Your task to perform on an android device: Open calendar and show me the first week of next month Image 0: 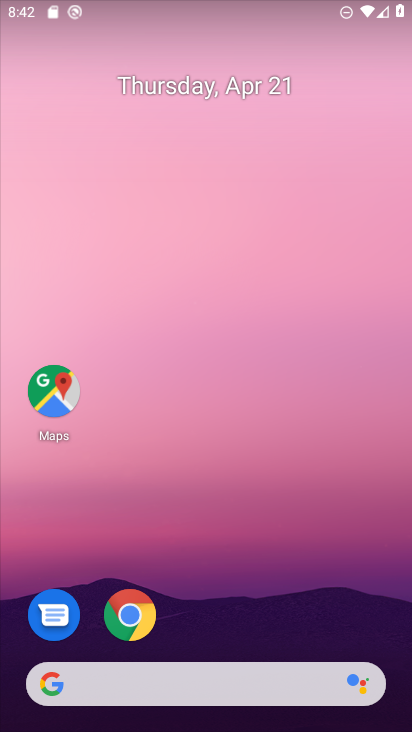
Step 0: drag from (327, 559) to (383, 0)
Your task to perform on an android device: Open calendar and show me the first week of next month Image 1: 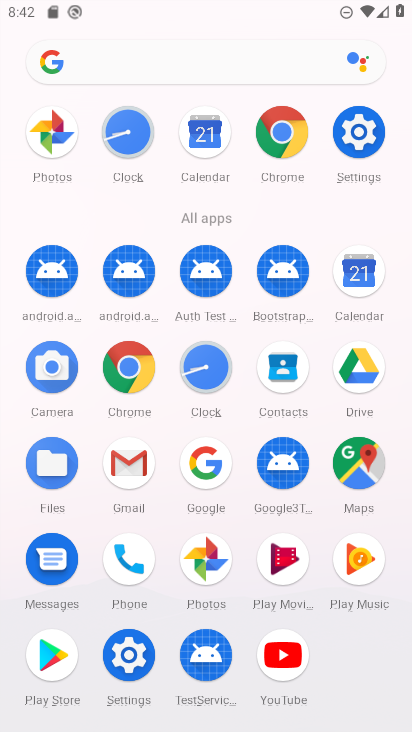
Step 1: click (371, 265)
Your task to perform on an android device: Open calendar and show me the first week of next month Image 2: 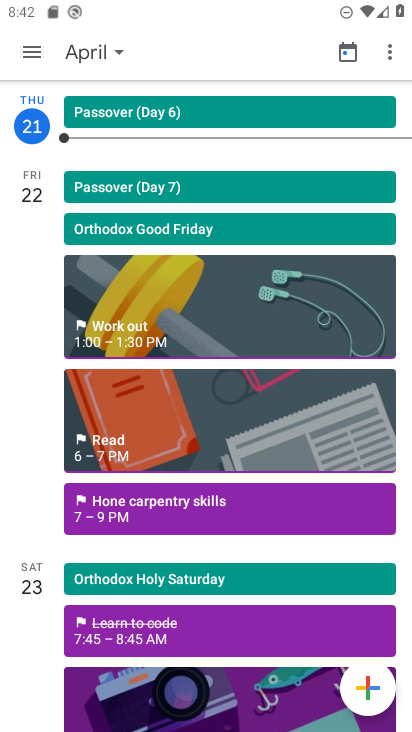
Step 2: click (68, 44)
Your task to perform on an android device: Open calendar and show me the first week of next month Image 3: 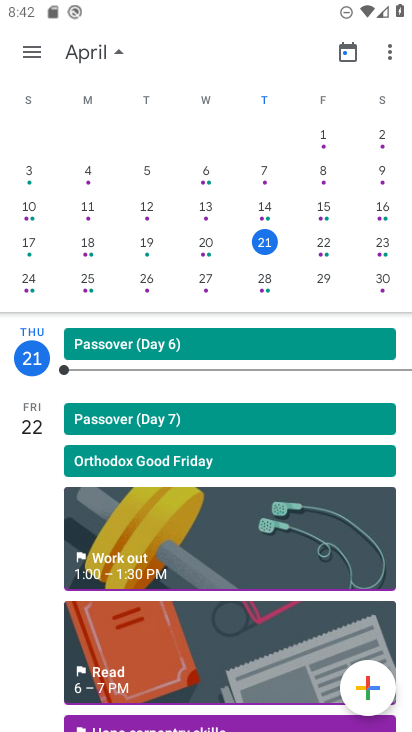
Step 3: drag from (347, 247) to (74, 236)
Your task to perform on an android device: Open calendar and show me the first week of next month Image 4: 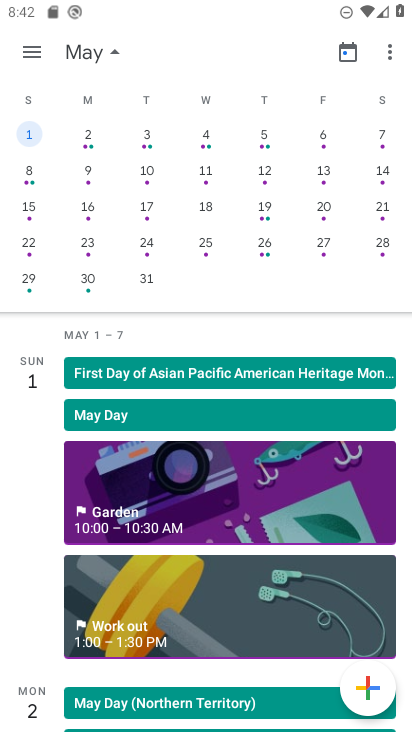
Step 4: click (385, 136)
Your task to perform on an android device: Open calendar and show me the first week of next month Image 5: 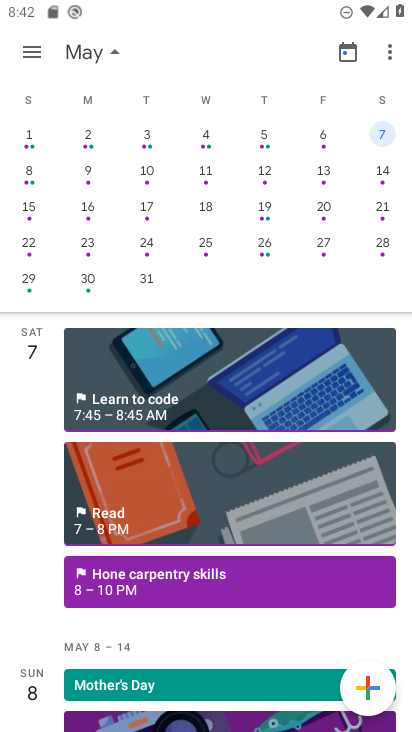
Step 5: task complete